Your task to perform on an android device: turn on bluetooth scan Image 0: 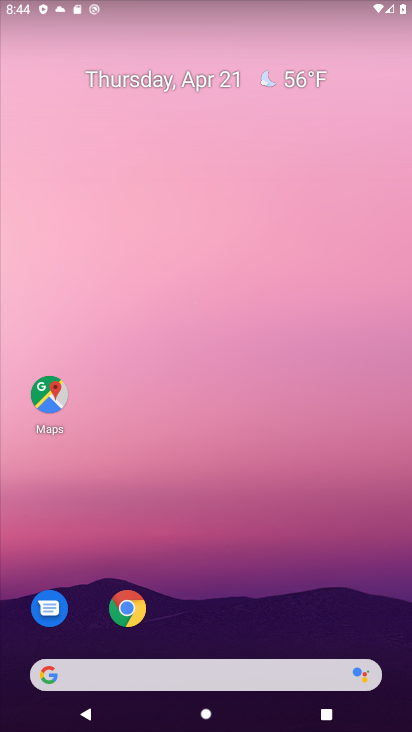
Step 0: drag from (272, 595) to (279, 156)
Your task to perform on an android device: turn on bluetooth scan Image 1: 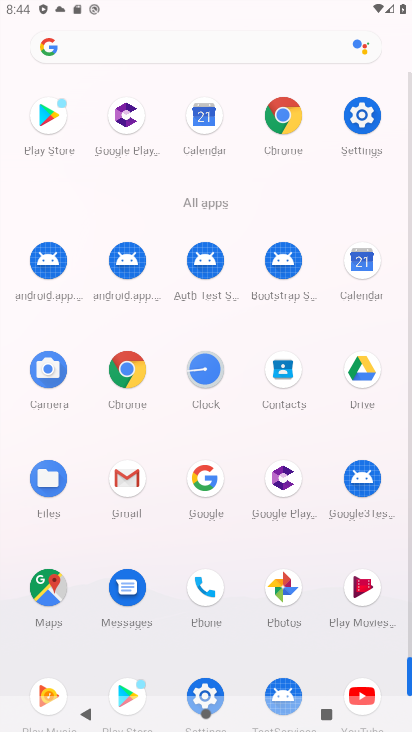
Step 1: click (354, 127)
Your task to perform on an android device: turn on bluetooth scan Image 2: 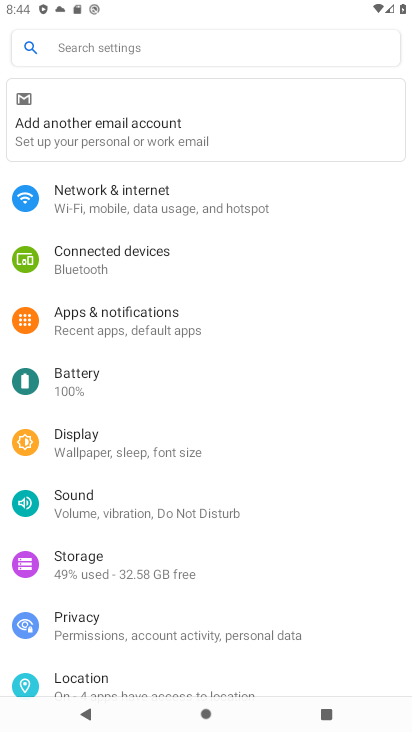
Step 2: click (246, 199)
Your task to perform on an android device: turn on bluetooth scan Image 3: 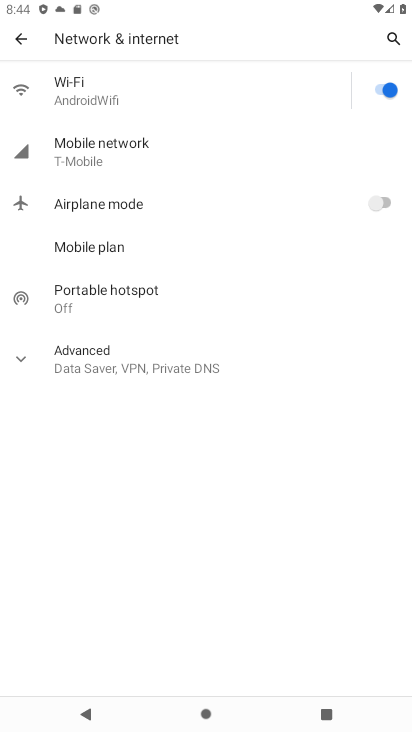
Step 3: press back button
Your task to perform on an android device: turn on bluetooth scan Image 4: 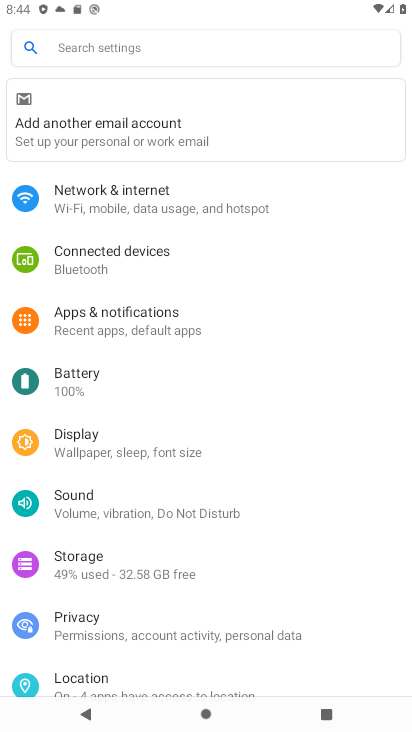
Step 4: click (189, 676)
Your task to perform on an android device: turn on bluetooth scan Image 5: 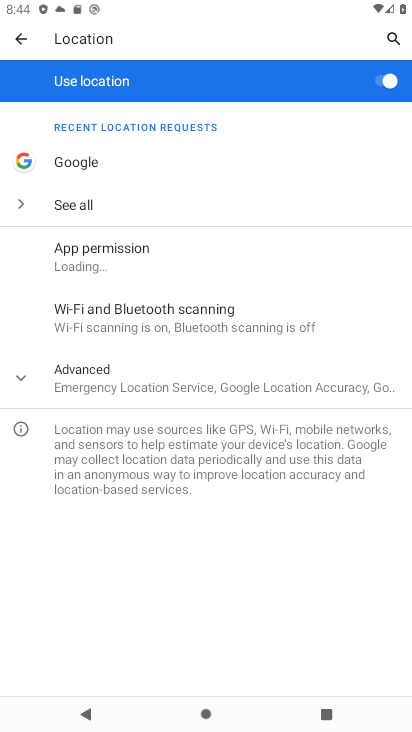
Step 5: click (237, 314)
Your task to perform on an android device: turn on bluetooth scan Image 6: 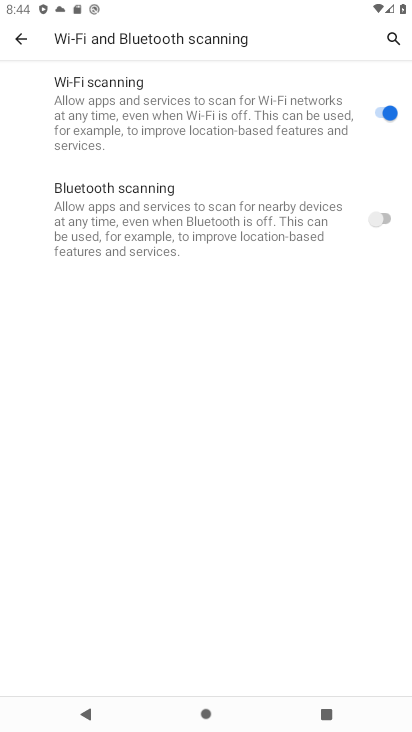
Step 6: click (382, 206)
Your task to perform on an android device: turn on bluetooth scan Image 7: 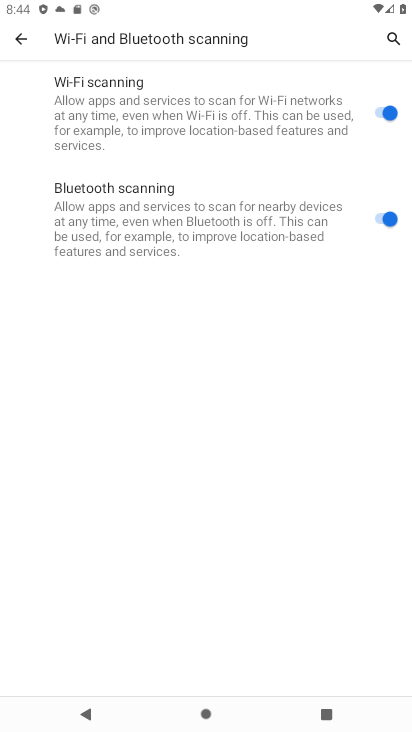
Step 7: task complete